Your task to perform on an android device: toggle wifi Image 0: 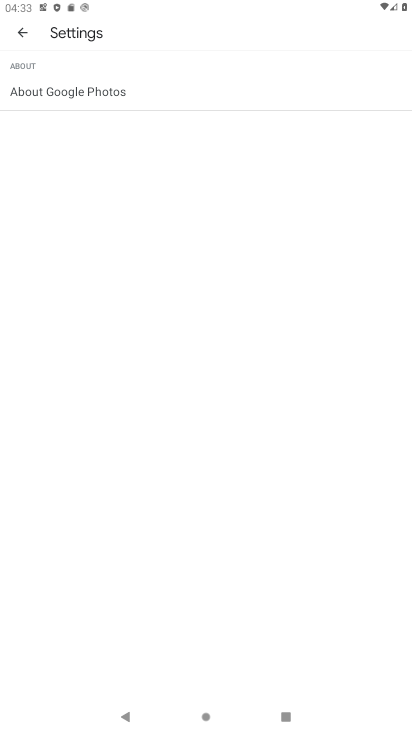
Step 0: press home button
Your task to perform on an android device: toggle wifi Image 1: 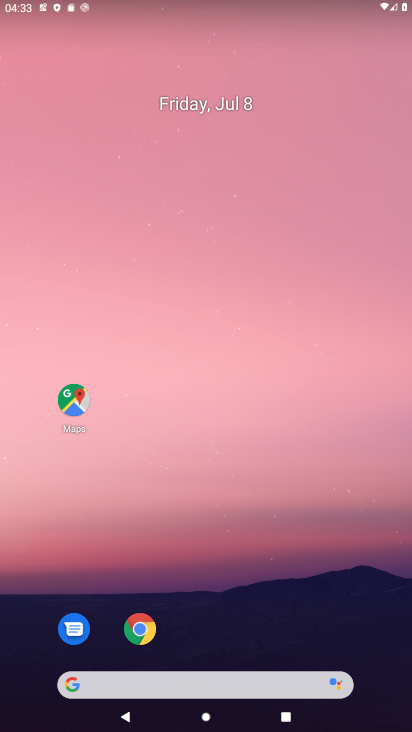
Step 1: drag from (234, 716) to (209, 247)
Your task to perform on an android device: toggle wifi Image 2: 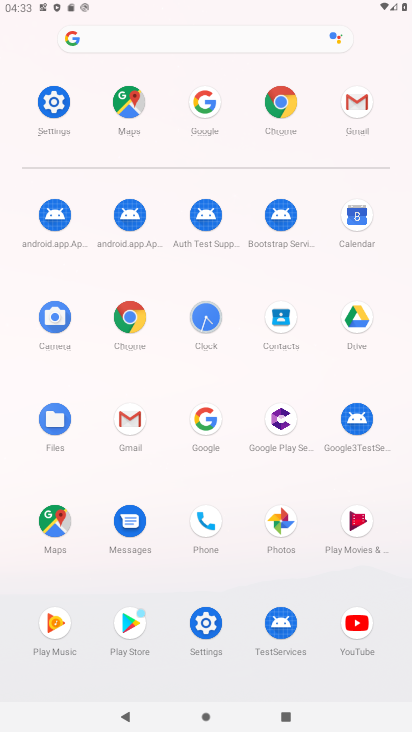
Step 2: click (51, 94)
Your task to perform on an android device: toggle wifi Image 3: 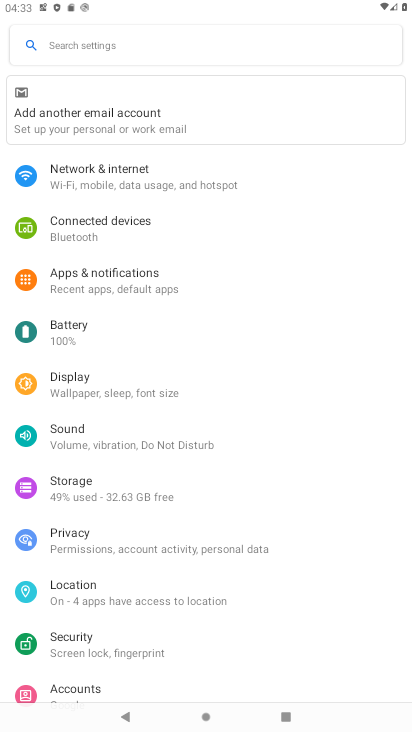
Step 3: click (87, 176)
Your task to perform on an android device: toggle wifi Image 4: 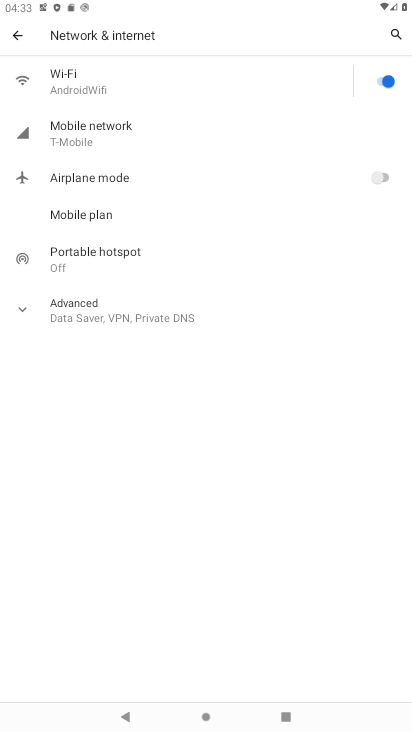
Step 4: click (385, 82)
Your task to perform on an android device: toggle wifi Image 5: 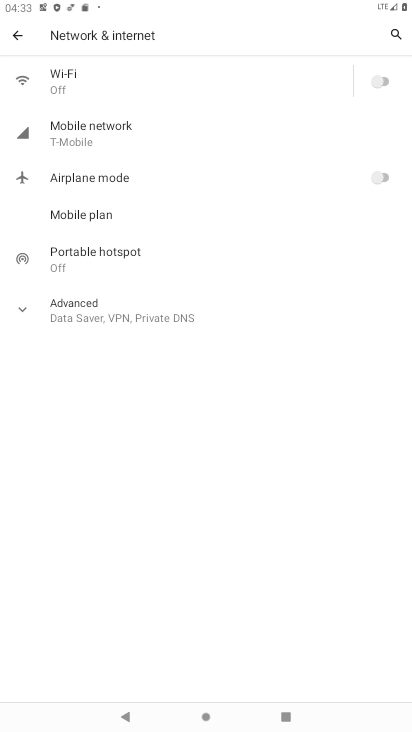
Step 5: task complete